Your task to perform on an android device: turn on javascript in the chrome app Image 0: 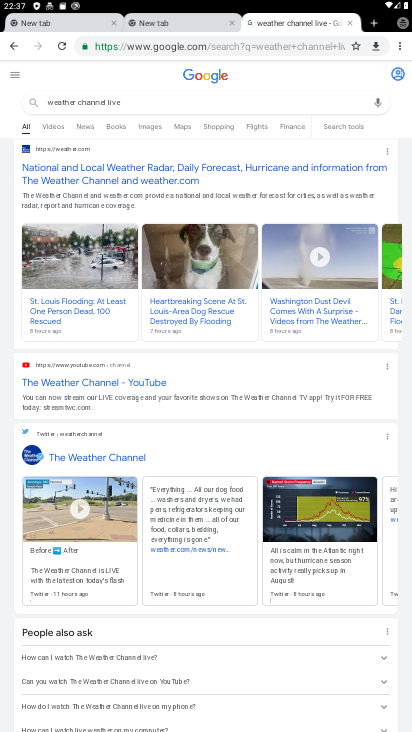
Step 0: press back button
Your task to perform on an android device: turn on javascript in the chrome app Image 1: 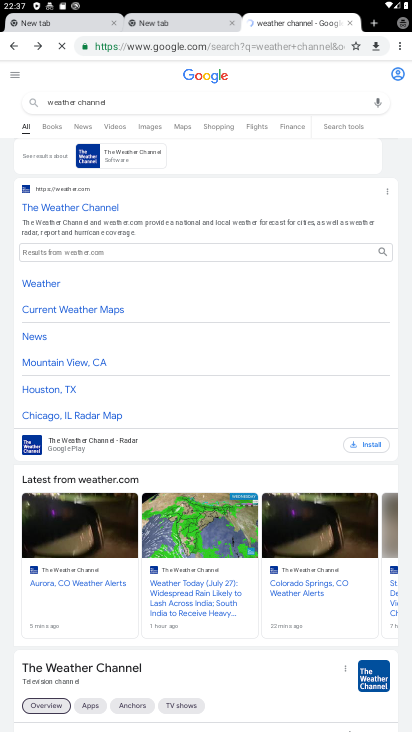
Step 1: click (133, 97)
Your task to perform on an android device: turn on javascript in the chrome app Image 2: 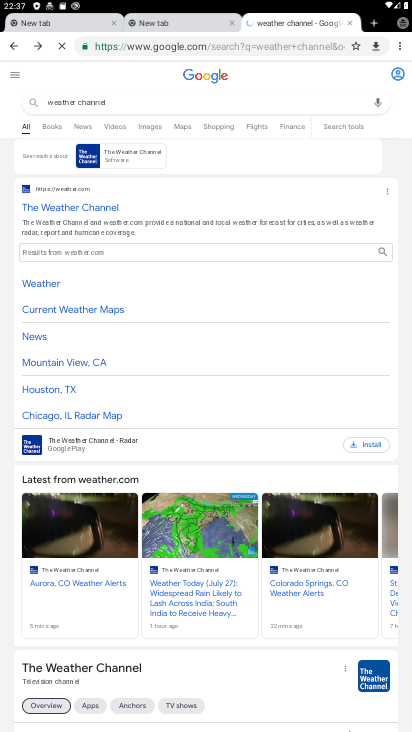
Step 2: click (133, 97)
Your task to perform on an android device: turn on javascript in the chrome app Image 3: 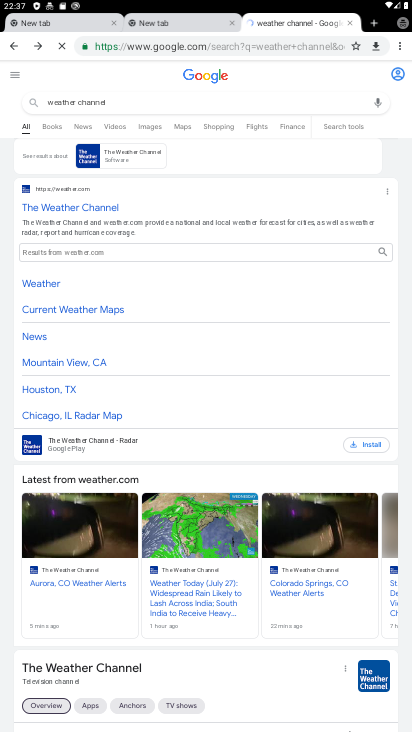
Step 3: click (132, 101)
Your task to perform on an android device: turn on javascript in the chrome app Image 4: 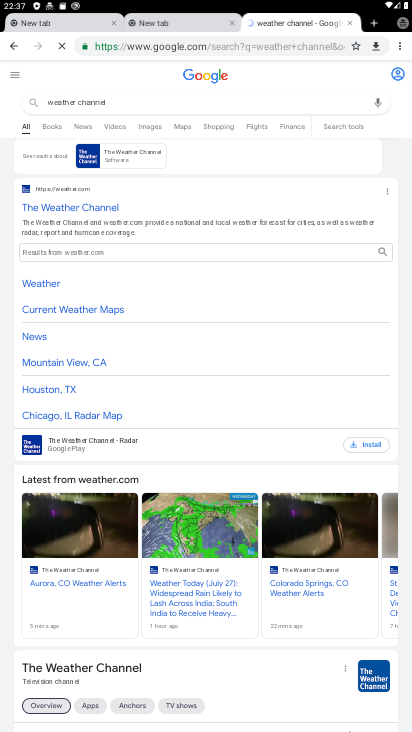
Step 4: click (131, 102)
Your task to perform on an android device: turn on javascript in the chrome app Image 5: 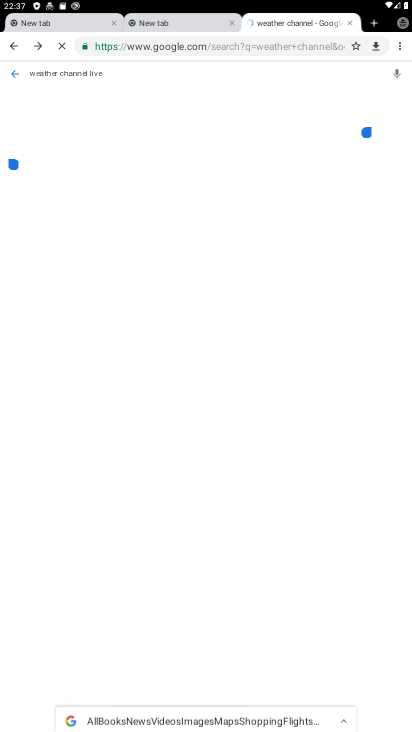
Step 5: click (132, 116)
Your task to perform on an android device: turn on javascript in the chrome app Image 6: 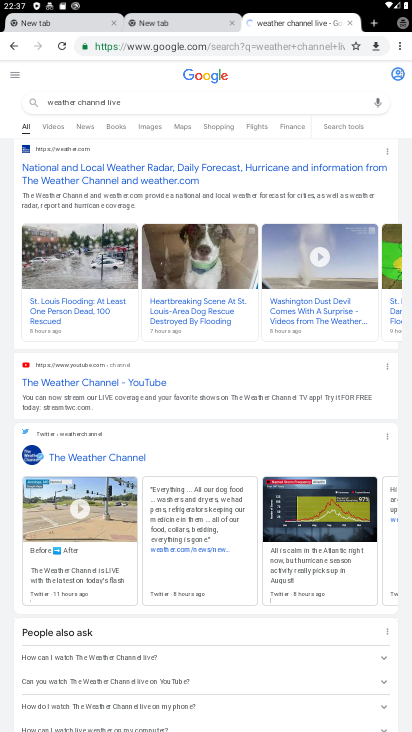
Step 6: drag from (403, 49) to (309, 286)
Your task to perform on an android device: turn on javascript in the chrome app Image 7: 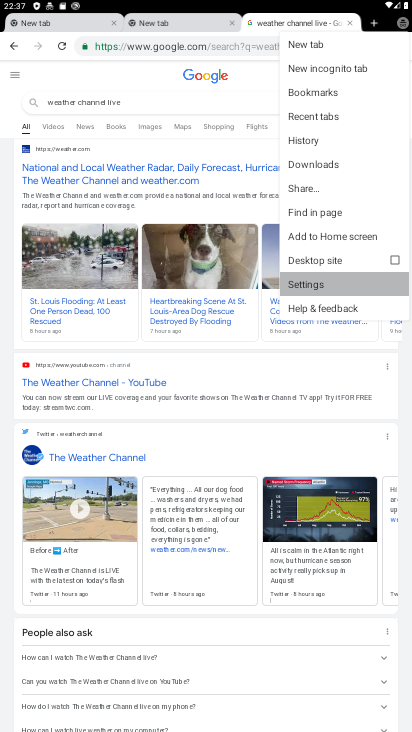
Step 7: click (318, 301)
Your task to perform on an android device: turn on javascript in the chrome app Image 8: 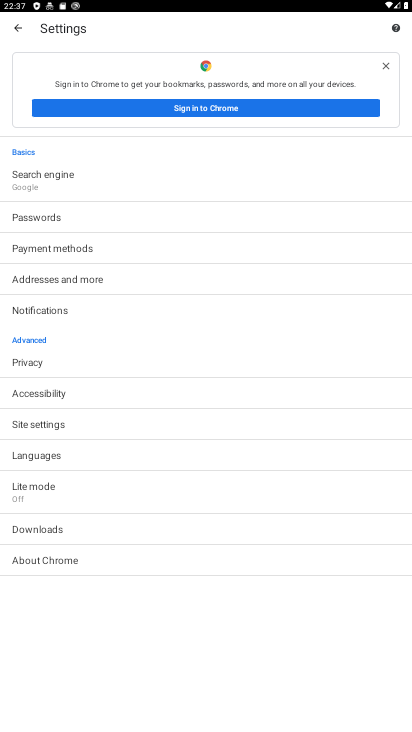
Step 8: click (33, 428)
Your task to perform on an android device: turn on javascript in the chrome app Image 9: 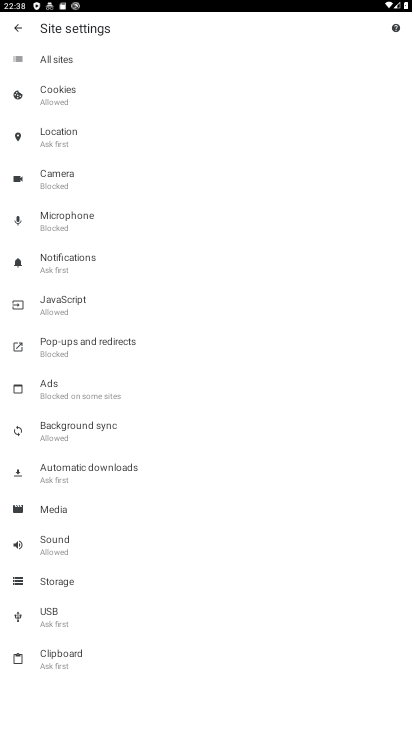
Step 9: click (55, 327)
Your task to perform on an android device: turn on javascript in the chrome app Image 10: 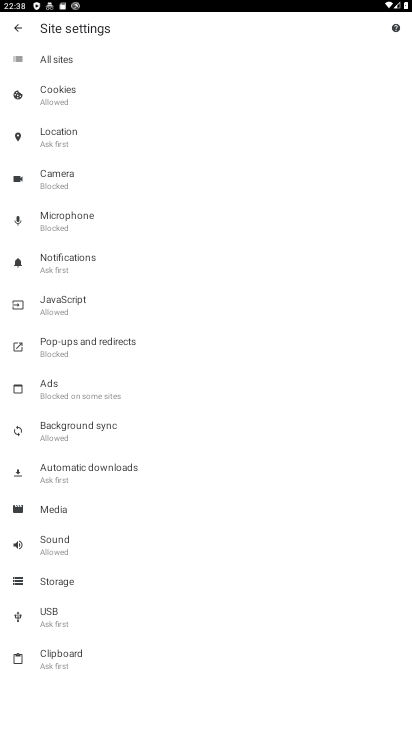
Step 10: click (39, 329)
Your task to perform on an android device: turn on javascript in the chrome app Image 11: 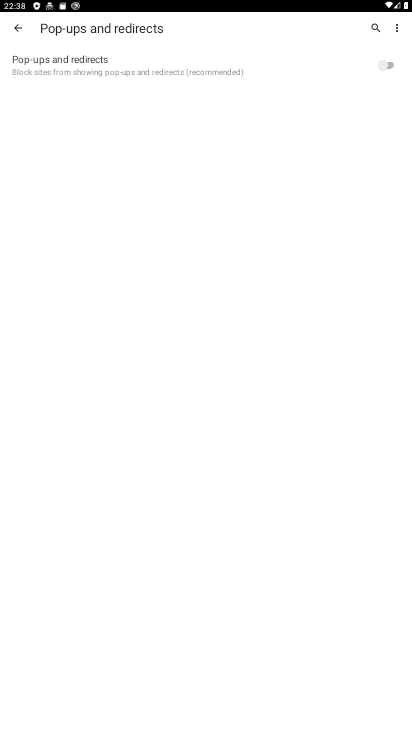
Step 11: click (23, 36)
Your task to perform on an android device: turn on javascript in the chrome app Image 12: 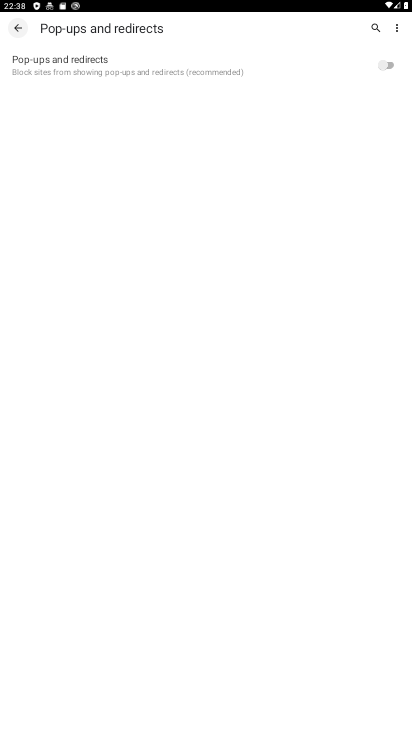
Step 12: click (39, 77)
Your task to perform on an android device: turn on javascript in the chrome app Image 13: 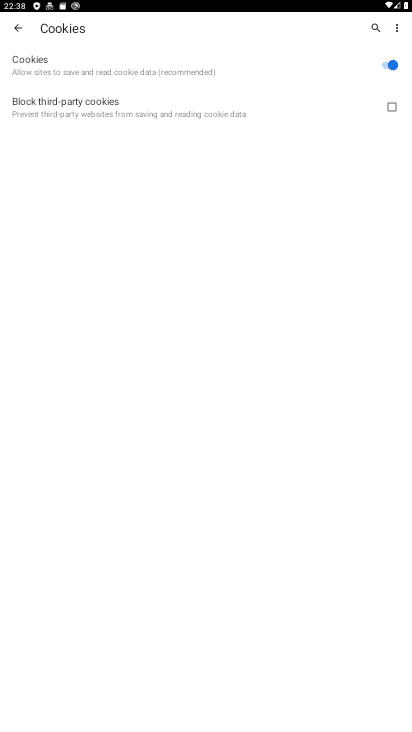
Step 13: click (19, 16)
Your task to perform on an android device: turn on javascript in the chrome app Image 14: 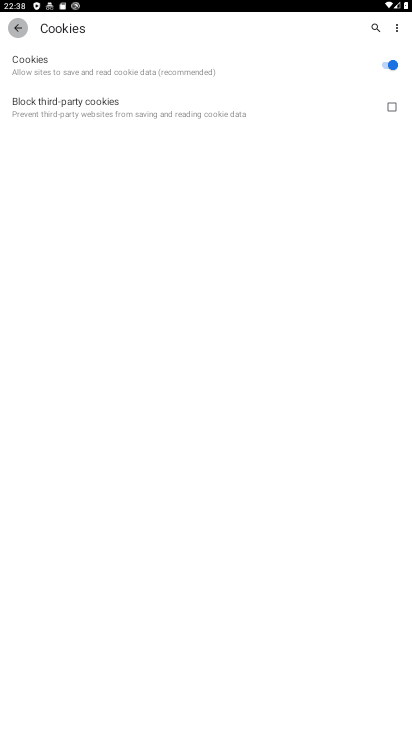
Step 14: click (17, 18)
Your task to perform on an android device: turn on javascript in the chrome app Image 15: 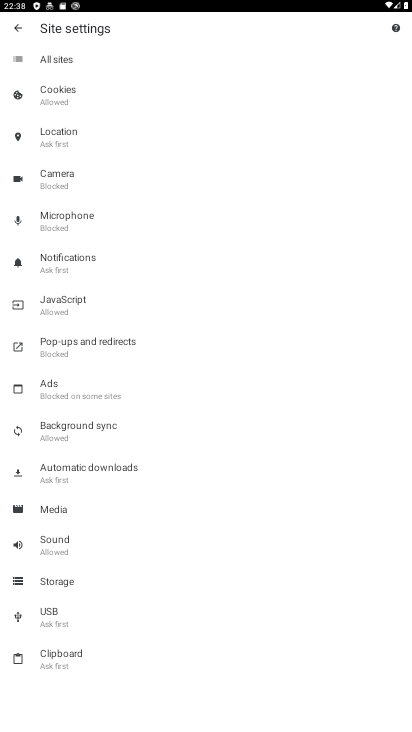
Step 15: drag from (66, 302) to (88, 328)
Your task to perform on an android device: turn on javascript in the chrome app Image 16: 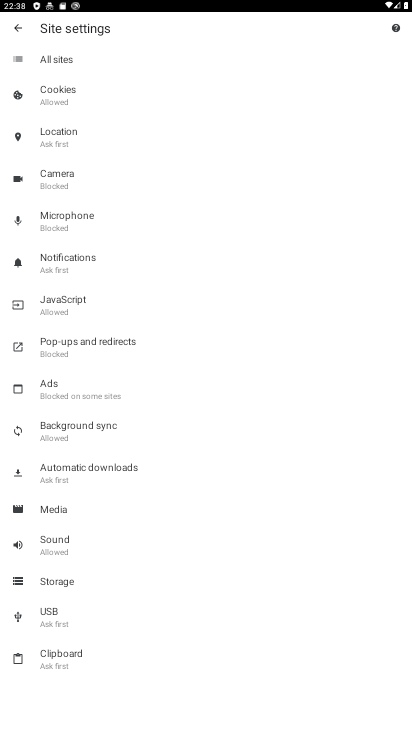
Step 16: click (62, 311)
Your task to perform on an android device: turn on javascript in the chrome app Image 17: 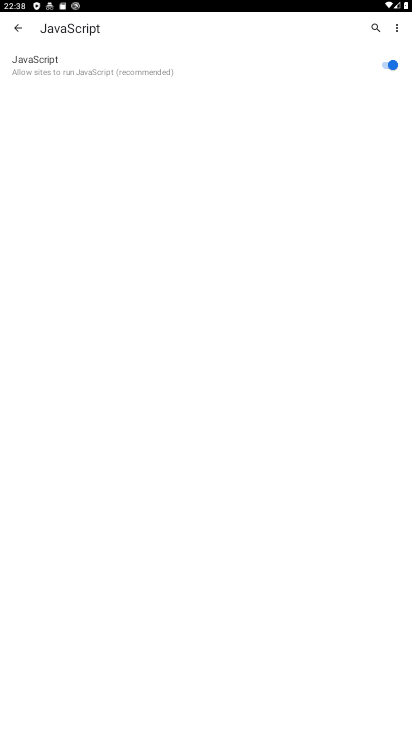
Step 17: task complete